Your task to perform on an android device: Open Youtube and go to "Your channel" Image 0: 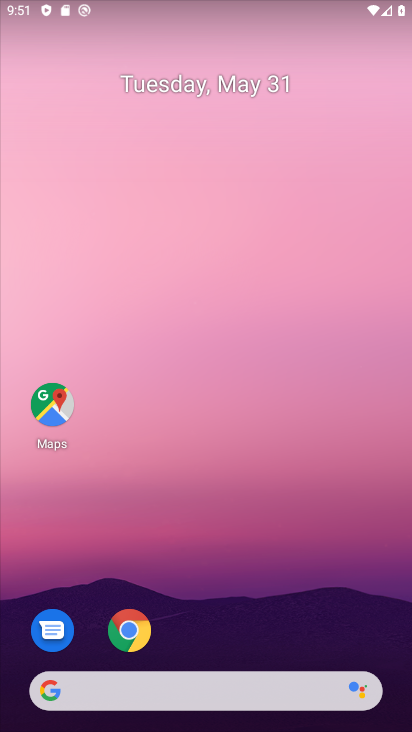
Step 0: press home button
Your task to perform on an android device: Open Youtube and go to "Your channel" Image 1: 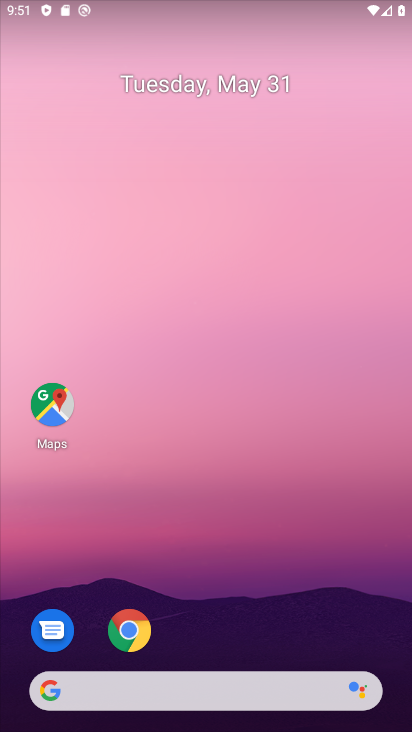
Step 1: drag from (258, 401) to (263, 132)
Your task to perform on an android device: Open Youtube and go to "Your channel" Image 2: 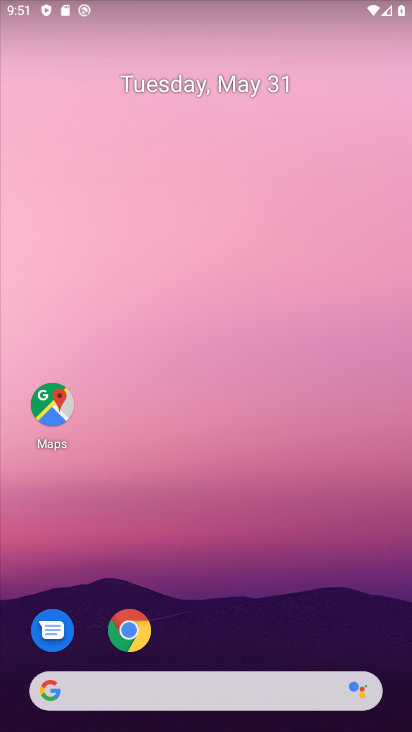
Step 2: drag from (304, 530) to (334, 22)
Your task to perform on an android device: Open Youtube and go to "Your channel" Image 3: 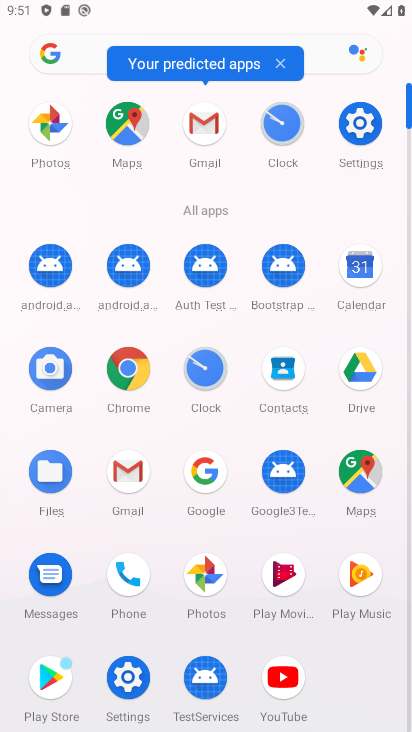
Step 3: click (278, 686)
Your task to perform on an android device: Open Youtube and go to "Your channel" Image 4: 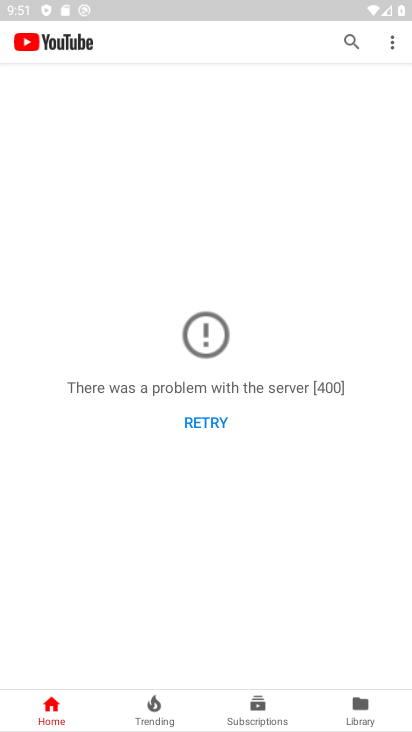
Step 4: click (199, 411)
Your task to perform on an android device: Open Youtube and go to "Your channel" Image 5: 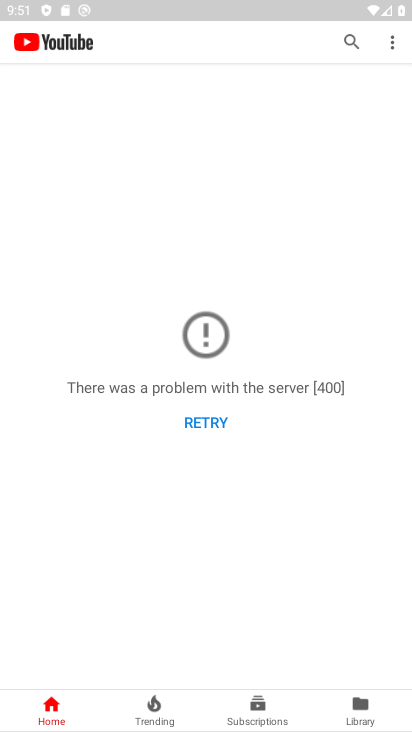
Step 5: click (392, 39)
Your task to perform on an android device: Open Youtube and go to "Your channel" Image 6: 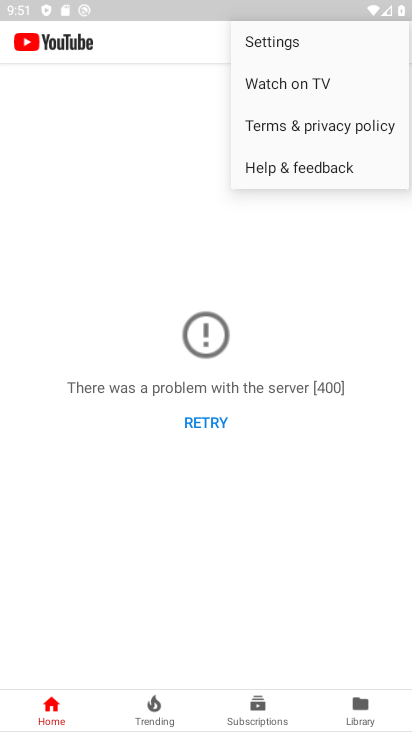
Step 6: click (74, 42)
Your task to perform on an android device: Open Youtube and go to "Your channel" Image 7: 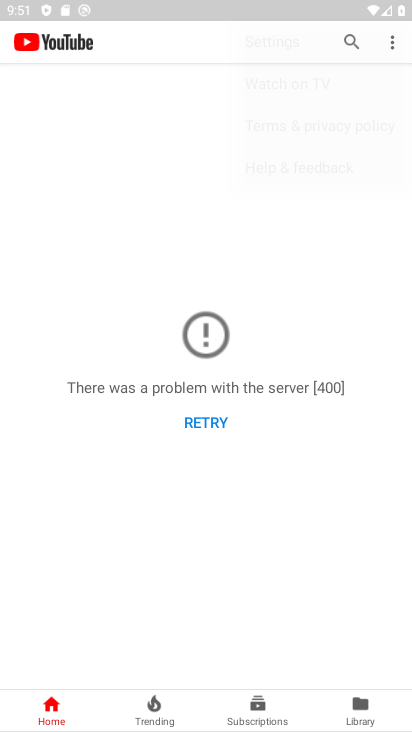
Step 7: click (74, 42)
Your task to perform on an android device: Open Youtube and go to "Your channel" Image 8: 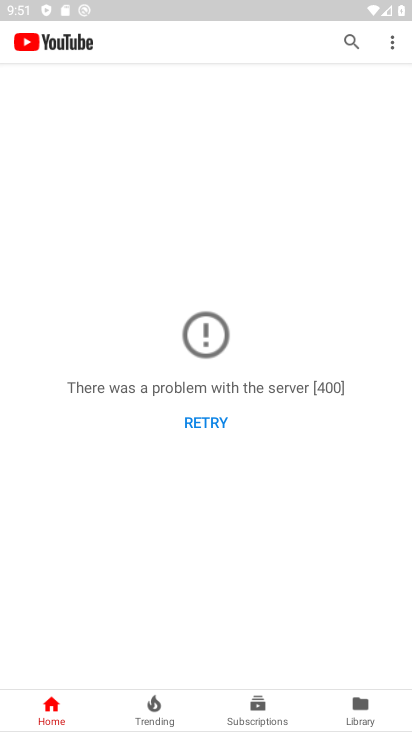
Step 8: click (56, 717)
Your task to perform on an android device: Open Youtube and go to "Your channel" Image 9: 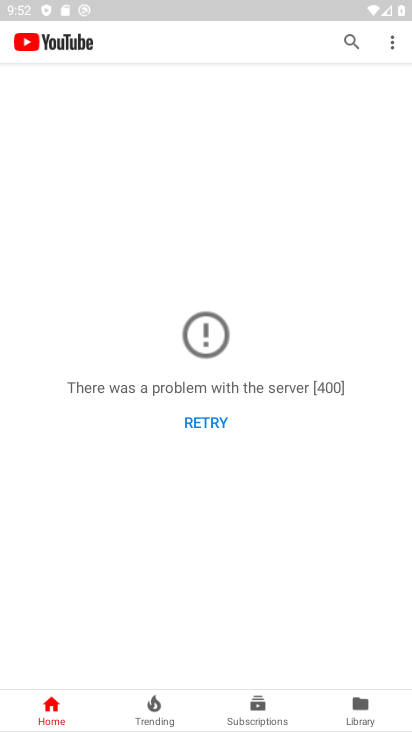
Step 9: task complete